Your task to perform on an android device: Open Reddit.com Image 0: 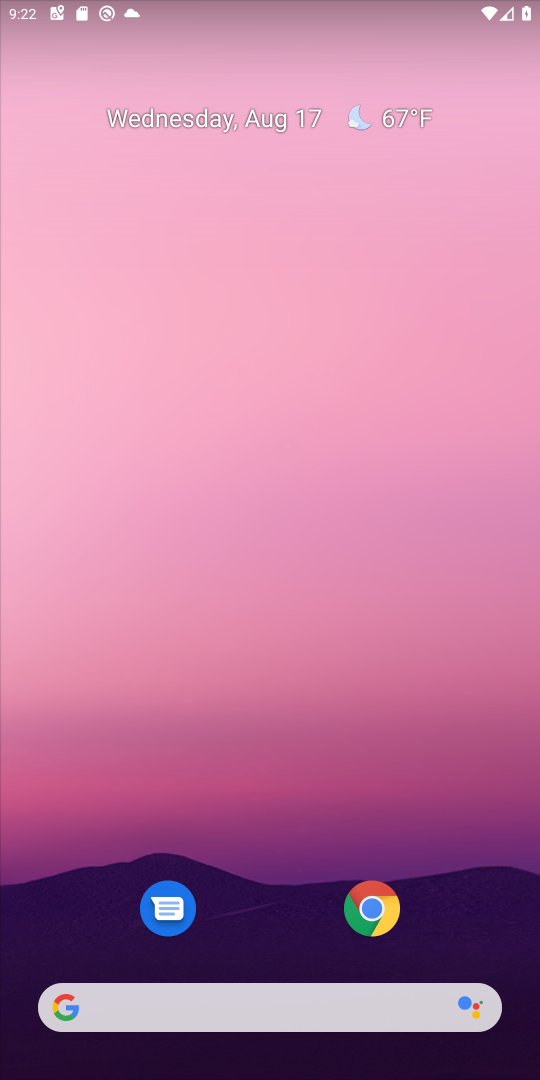
Step 0: drag from (315, 923) to (530, 17)
Your task to perform on an android device: Open Reddit.com Image 1: 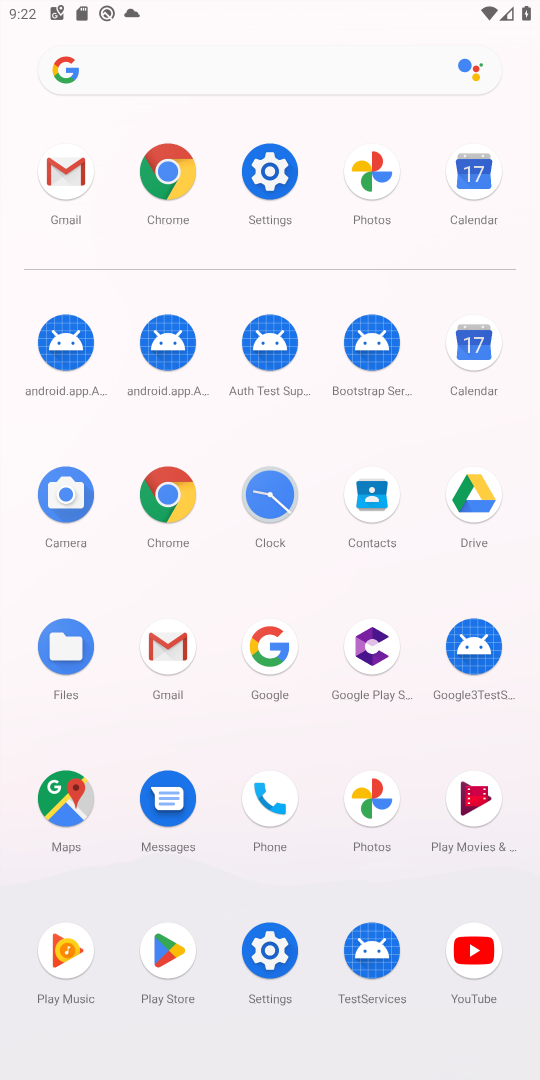
Step 1: click (166, 491)
Your task to perform on an android device: Open Reddit.com Image 2: 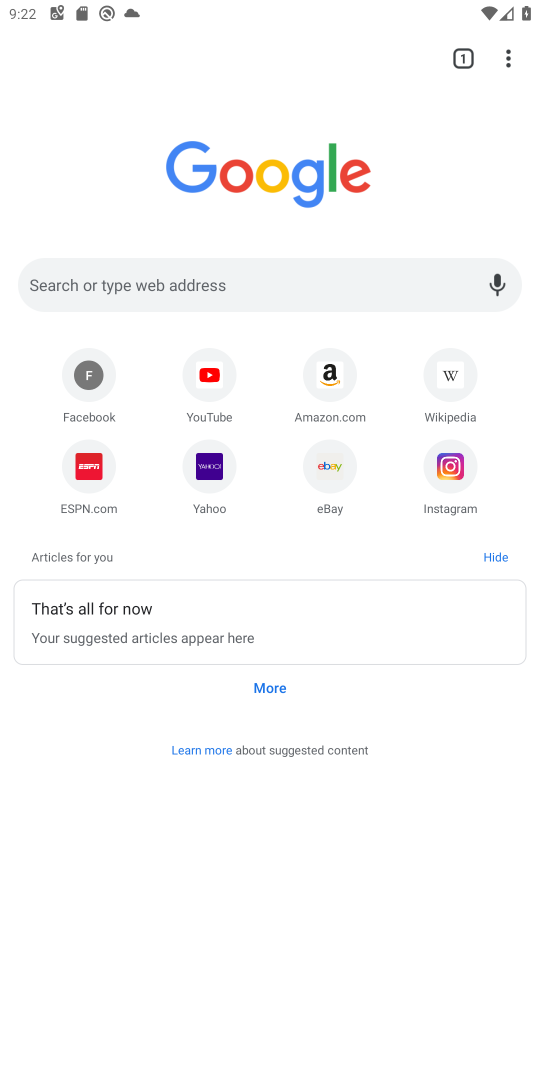
Step 2: click (142, 276)
Your task to perform on an android device: Open Reddit.com Image 3: 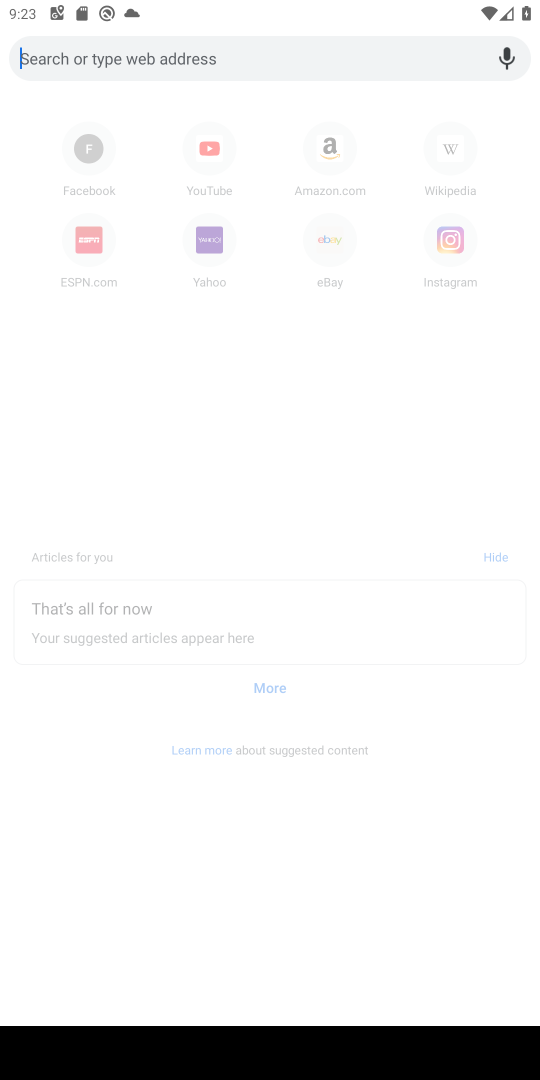
Step 3: type " coffee"
Your task to perform on an android device: Open Reddit.com Image 4: 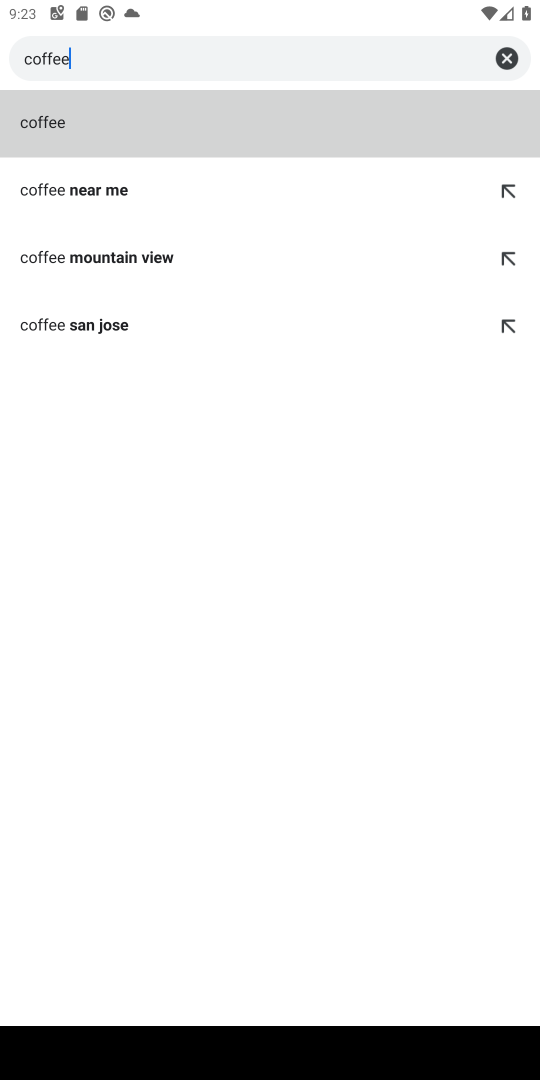
Step 4: click (44, 113)
Your task to perform on an android device: Open Reddit.com Image 5: 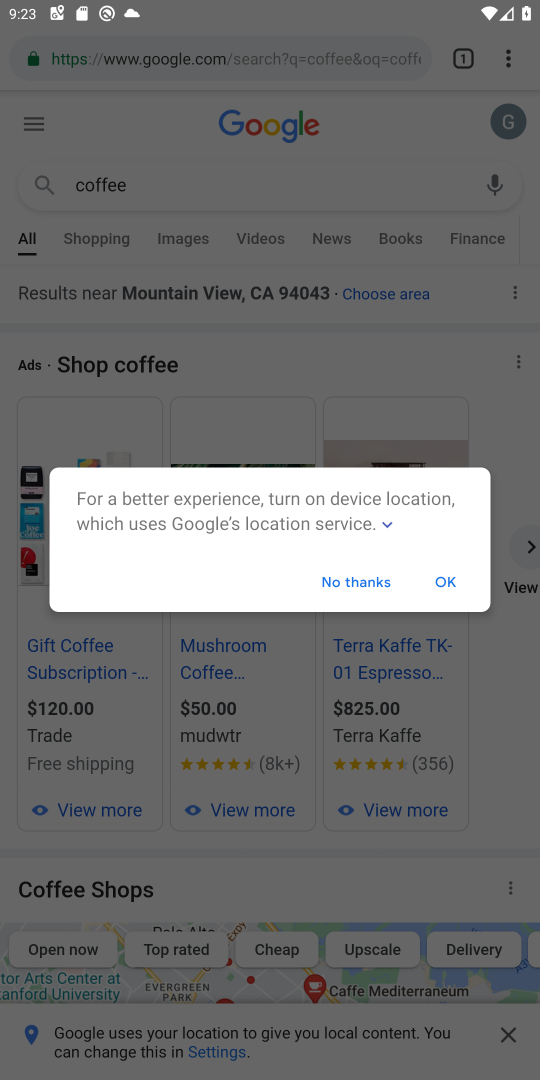
Step 5: click (448, 584)
Your task to perform on an android device: Open Reddit.com Image 6: 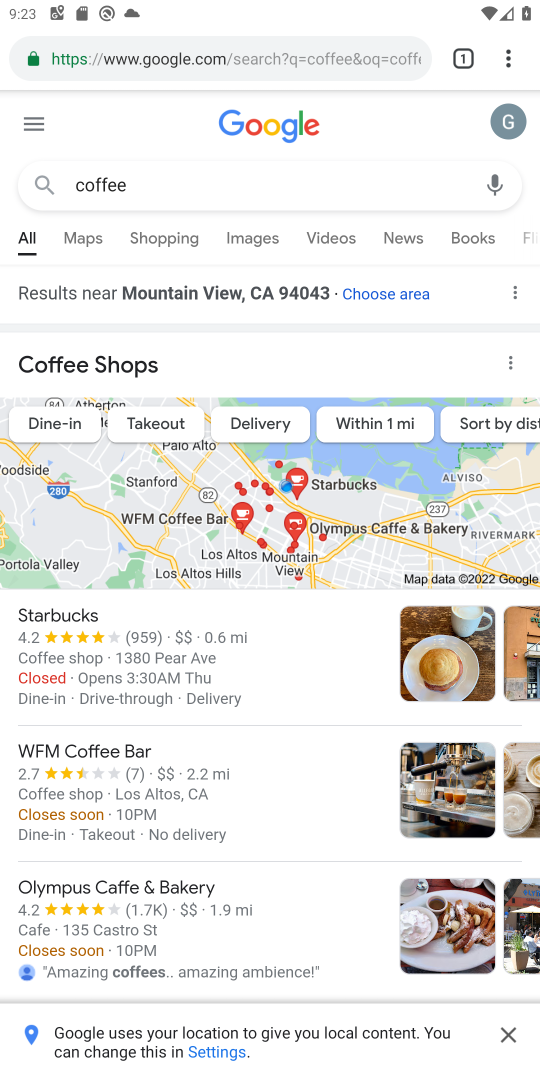
Step 6: task complete